Your task to perform on an android device: allow cookies in the chrome app Image 0: 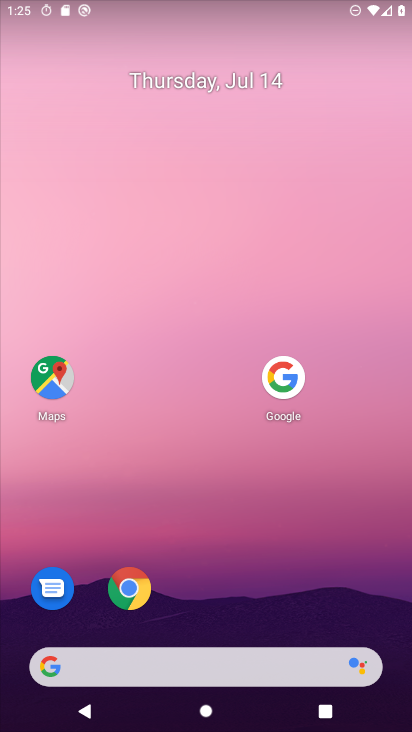
Step 0: click (135, 583)
Your task to perform on an android device: allow cookies in the chrome app Image 1: 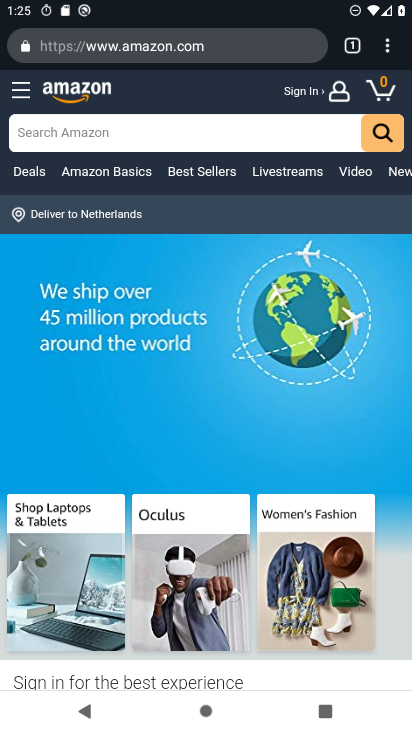
Step 1: drag from (380, 53) to (251, 601)
Your task to perform on an android device: allow cookies in the chrome app Image 2: 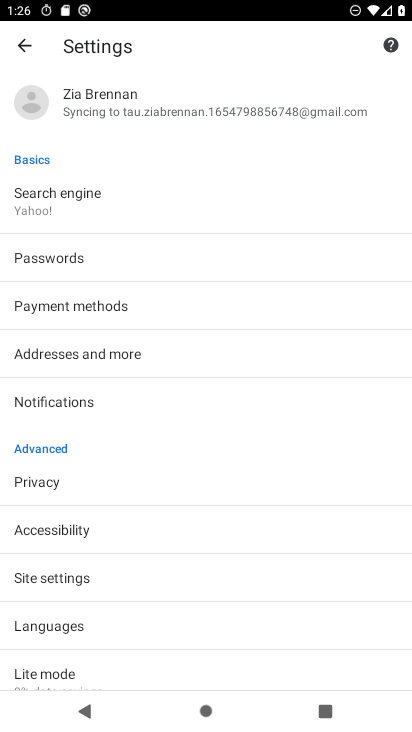
Step 2: click (83, 579)
Your task to perform on an android device: allow cookies in the chrome app Image 3: 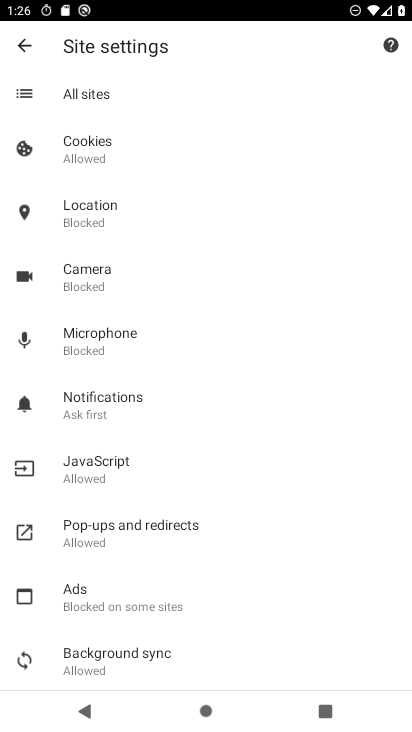
Step 3: click (111, 143)
Your task to perform on an android device: allow cookies in the chrome app Image 4: 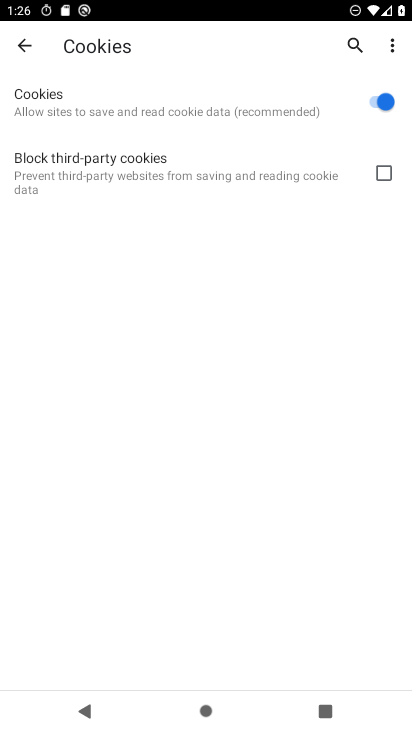
Step 4: task complete